Your task to perform on an android device: set the timer Image 0: 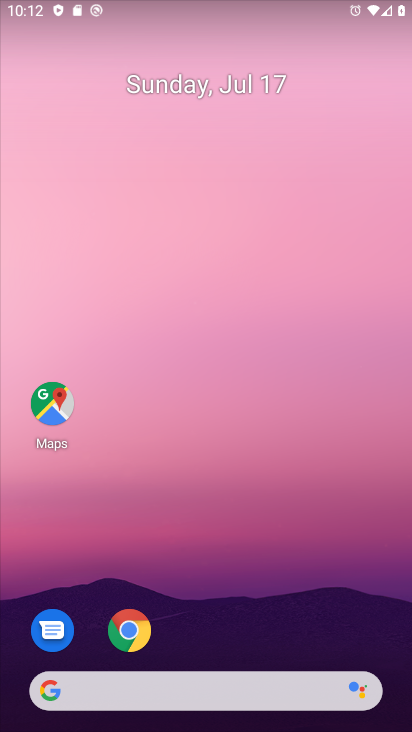
Step 0: drag from (353, 622) to (348, 118)
Your task to perform on an android device: set the timer Image 1: 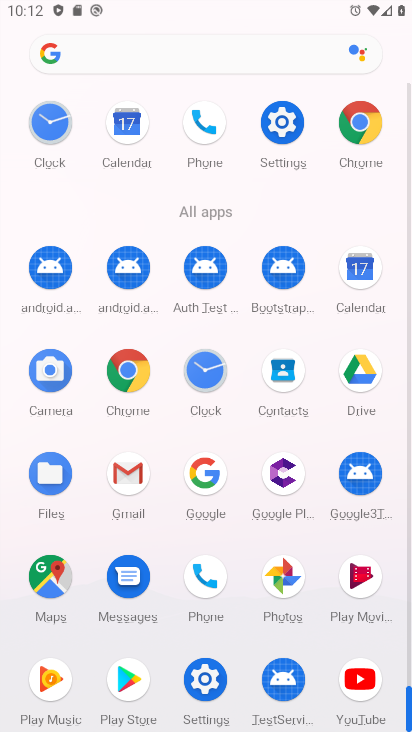
Step 1: click (205, 374)
Your task to perform on an android device: set the timer Image 2: 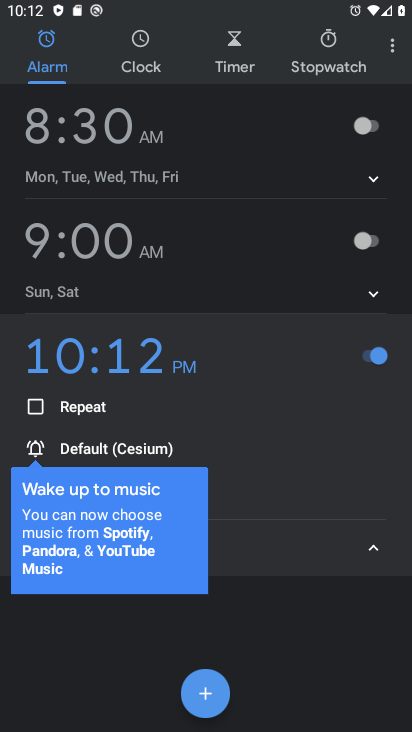
Step 2: click (222, 41)
Your task to perform on an android device: set the timer Image 3: 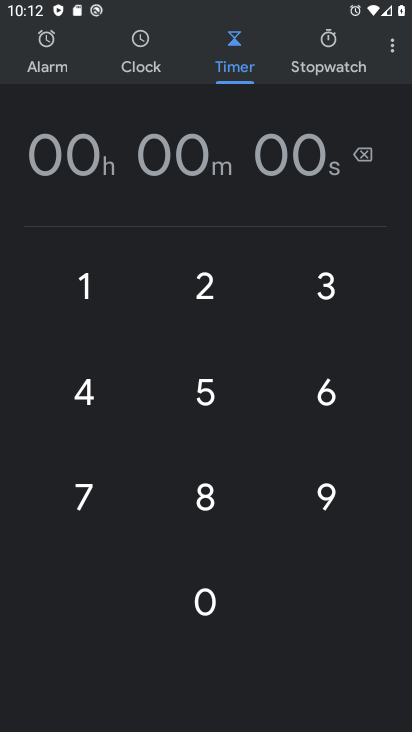
Step 3: click (209, 398)
Your task to perform on an android device: set the timer Image 4: 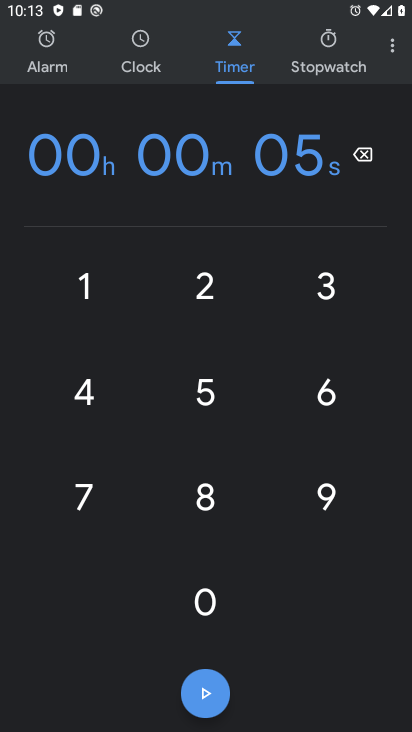
Step 4: task complete